Your task to perform on an android device: stop showing notifications on the lock screen Image 0: 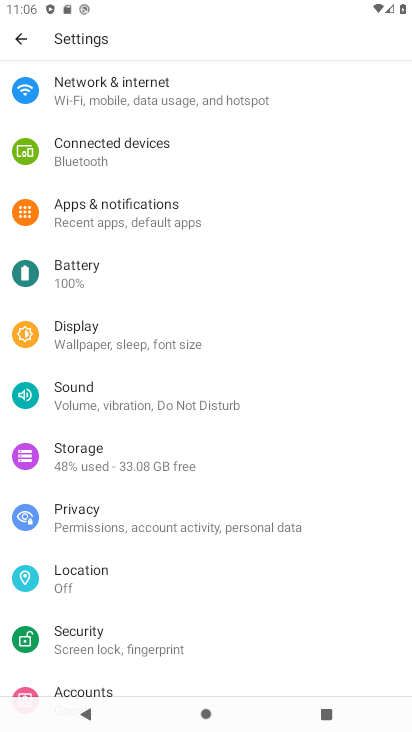
Step 0: press home button
Your task to perform on an android device: stop showing notifications on the lock screen Image 1: 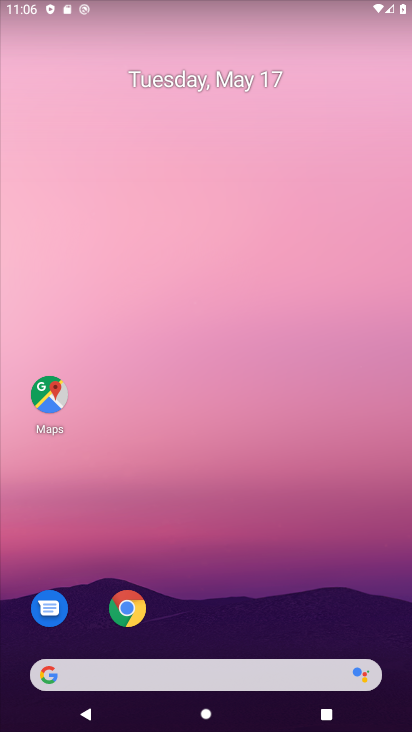
Step 1: drag from (238, 638) to (253, 81)
Your task to perform on an android device: stop showing notifications on the lock screen Image 2: 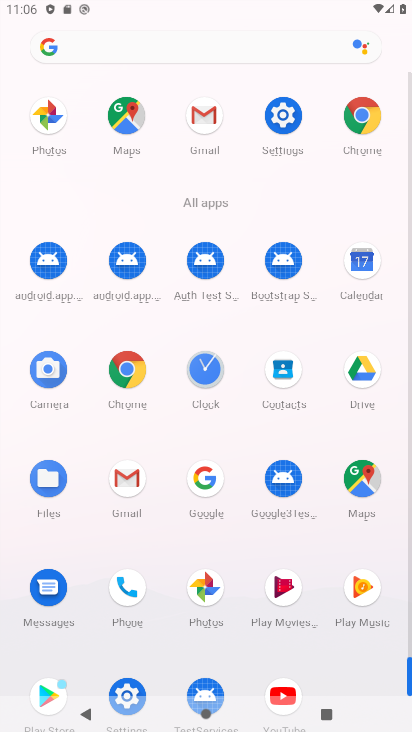
Step 2: drag from (158, 623) to (164, 496)
Your task to perform on an android device: stop showing notifications on the lock screen Image 3: 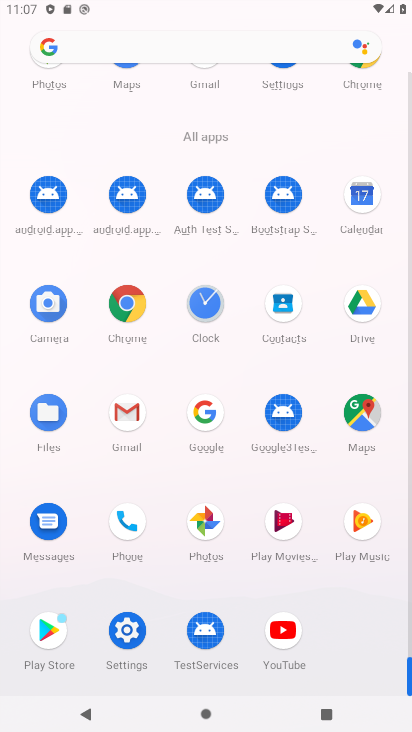
Step 3: click (122, 619)
Your task to perform on an android device: stop showing notifications on the lock screen Image 4: 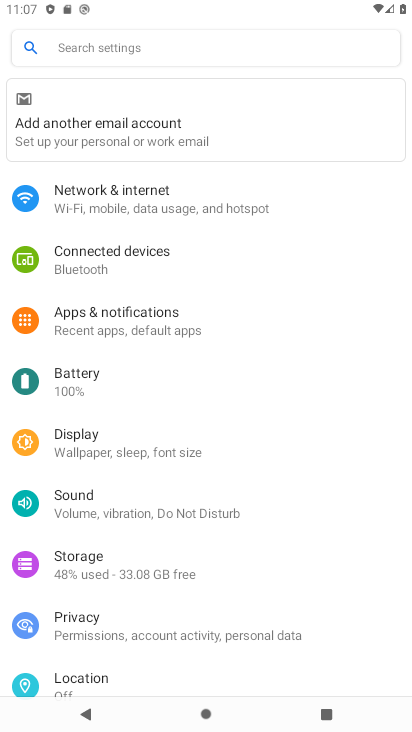
Step 4: click (153, 326)
Your task to perform on an android device: stop showing notifications on the lock screen Image 5: 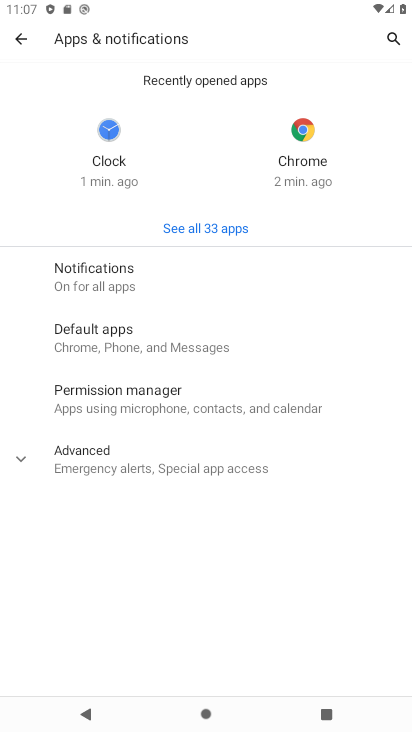
Step 5: click (136, 276)
Your task to perform on an android device: stop showing notifications on the lock screen Image 6: 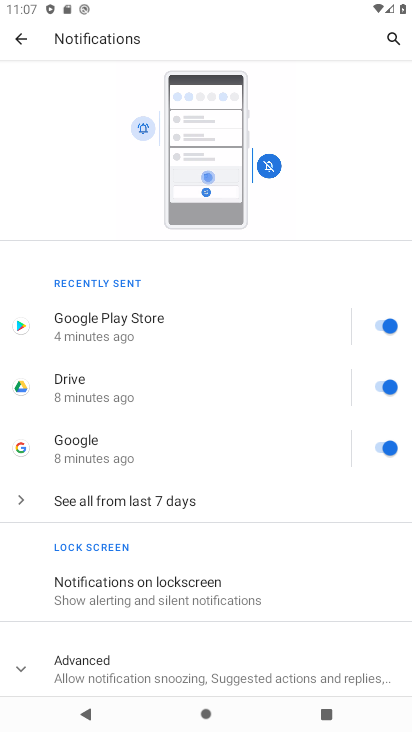
Step 6: click (153, 584)
Your task to perform on an android device: stop showing notifications on the lock screen Image 7: 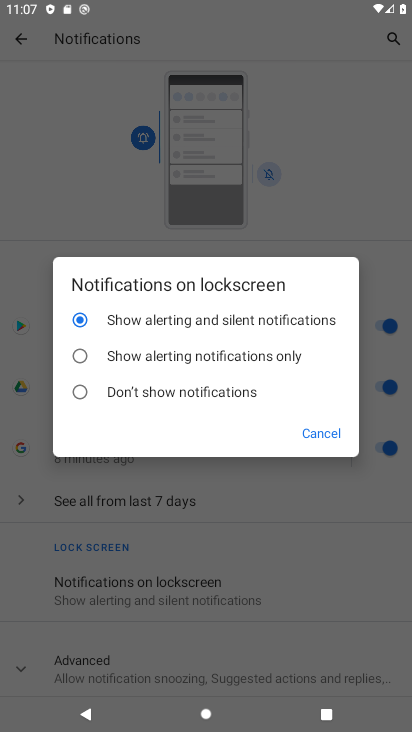
Step 7: click (134, 397)
Your task to perform on an android device: stop showing notifications on the lock screen Image 8: 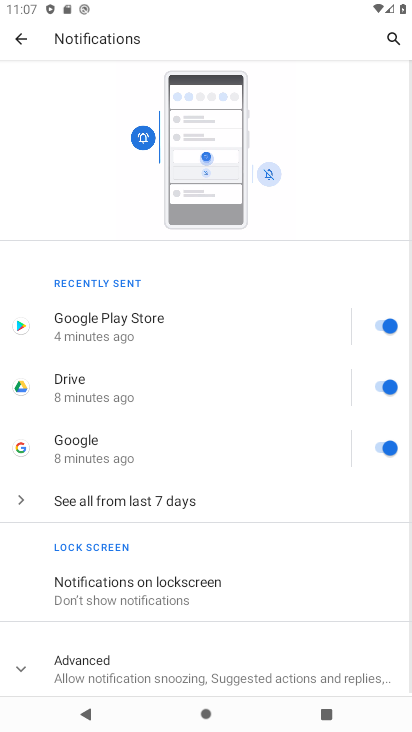
Step 8: task complete